Your task to perform on an android device: change notification settings in the gmail app Image 0: 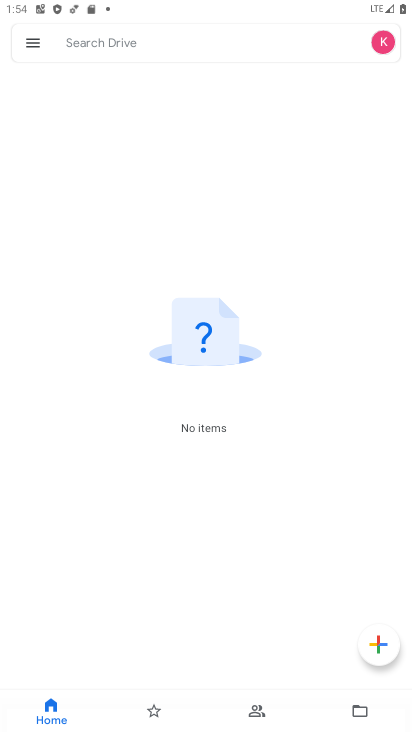
Step 0: press home button
Your task to perform on an android device: change notification settings in the gmail app Image 1: 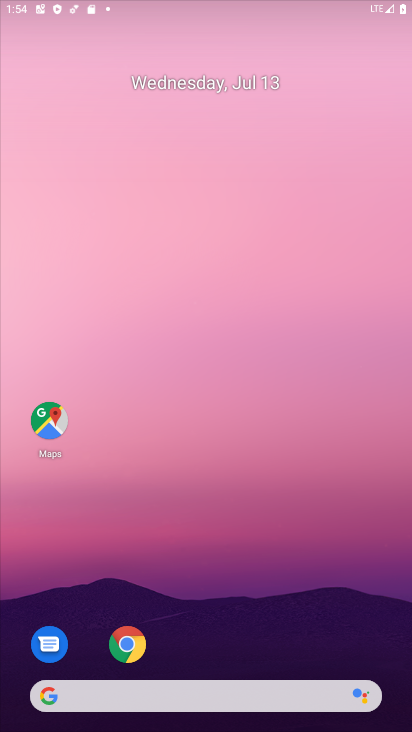
Step 1: drag from (307, 626) to (238, 118)
Your task to perform on an android device: change notification settings in the gmail app Image 2: 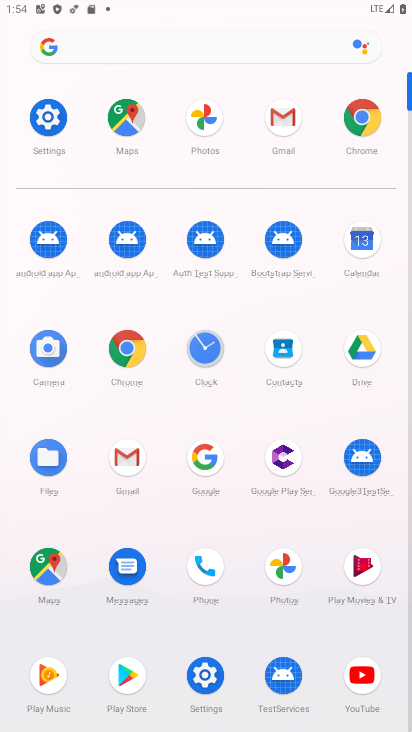
Step 2: click (295, 123)
Your task to perform on an android device: change notification settings in the gmail app Image 3: 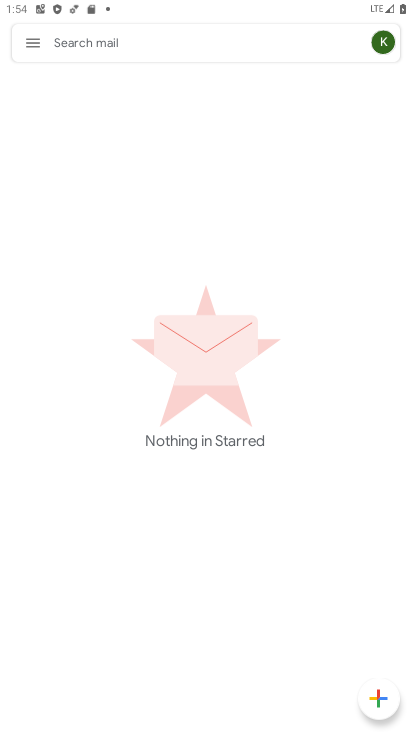
Step 3: click (33, 46)
Your task to perform on an android device: change notification settings in the gmail app Image 4: 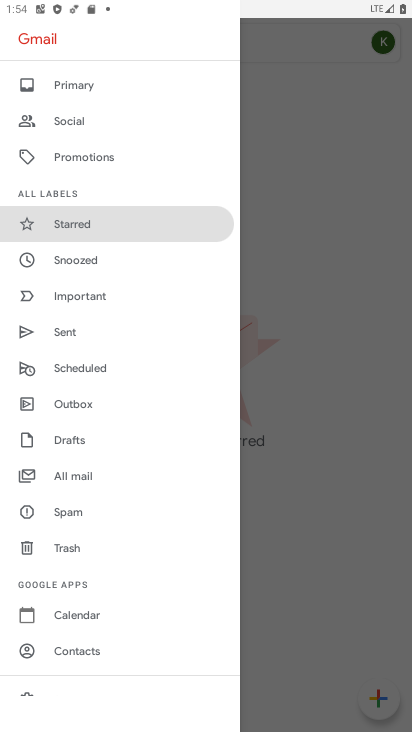
Step 4: drag from (85, 577) to (112, 198)
Your task to perform on an android device: change notification settings in the gmail app Image 5: 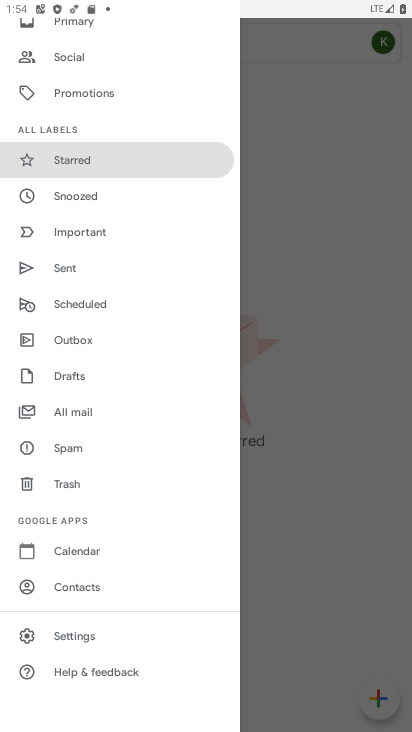
Step 5: click (79, 637)
Your task to perform on an android device: change notification settings in the gmail app Image 6: 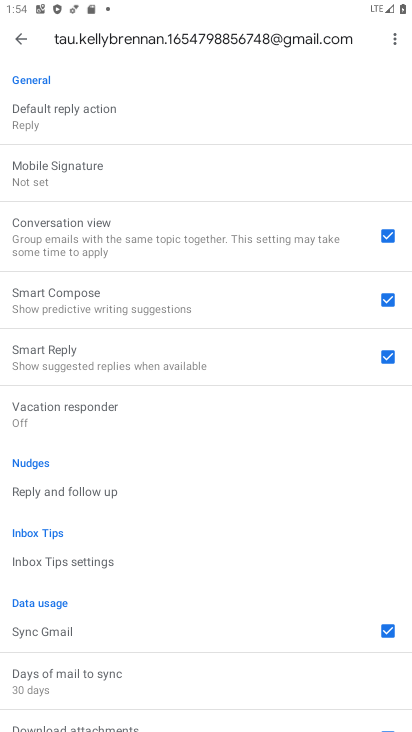
Step 6: drag from (213, 172) to (214, 598)
Your task to perform on an android device: change notification settings in the gmail app Image 7: 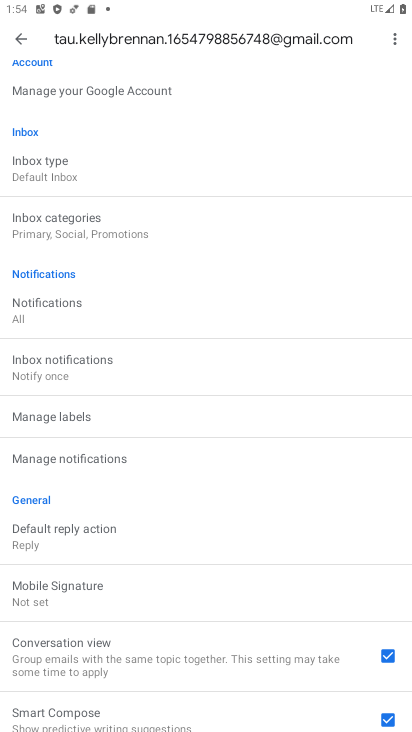
Step 7: drag from (185, 204) to (168, 563)
Your task to perform on an android device: change notification settings in the gmail app Image 8: 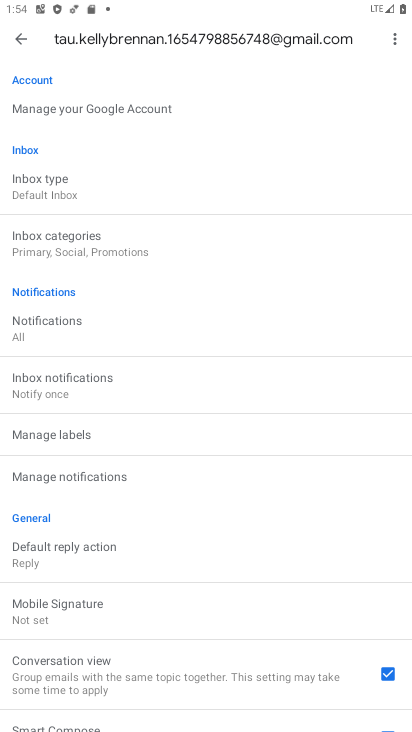
Step 8: drag from (267, 254) to (260, 536)
Your task to perform on an android device: change notification settings in the gmail app Image 9: 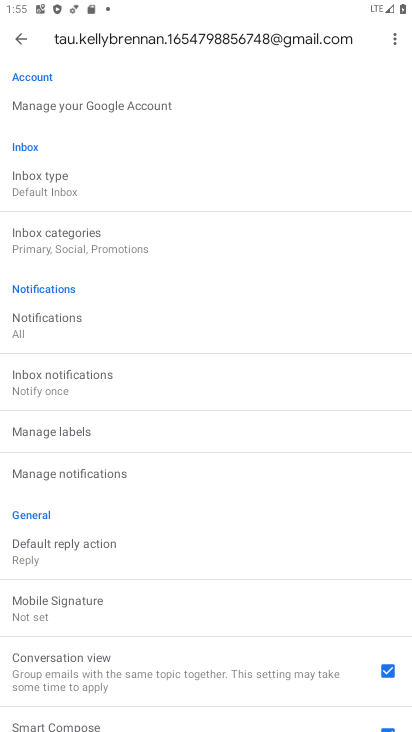
Step 9: click (96, 474)
Your task to perform on an android device: change notification settings in the gmail app Image 10: 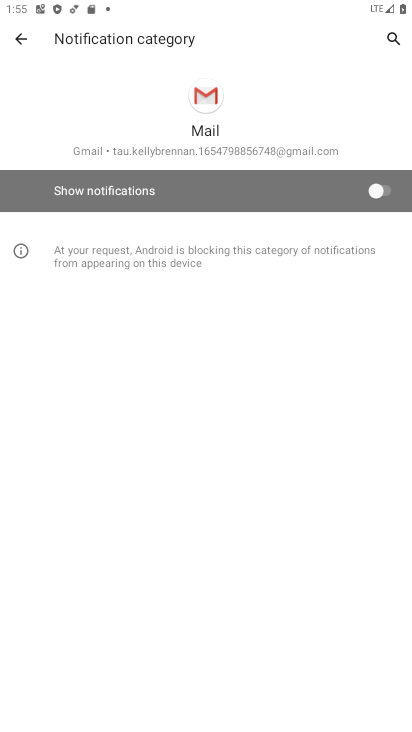
Step 10: click (379, 194)
Your task to perform on an android device: change notification settings in the gmail app Image 11: 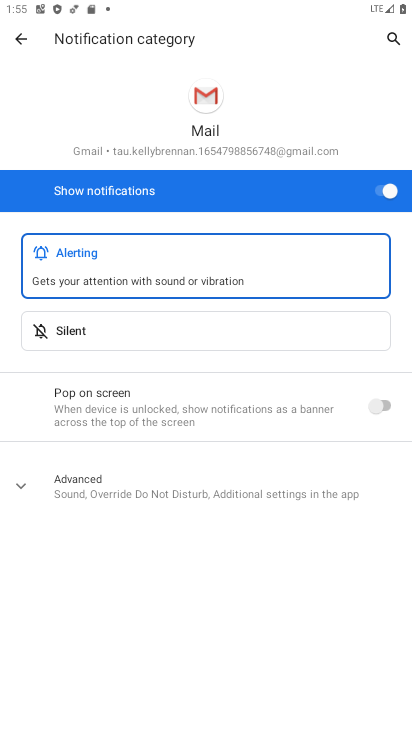
Step 11: task complete